Your task to perform on an android device: Go to wifi settings Image 0: 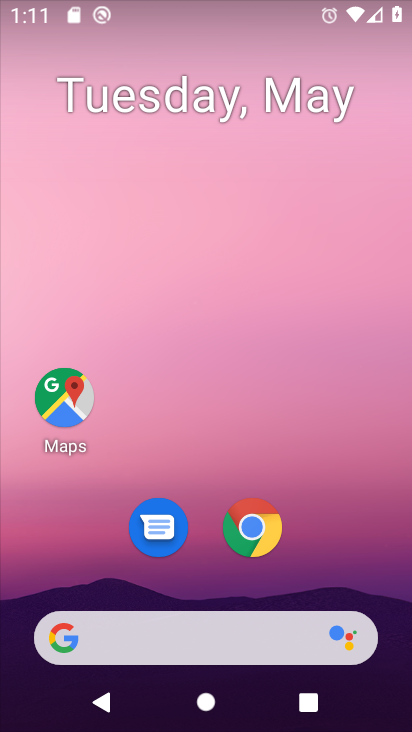
Step 0: drag from (265, 657) to (393, 1)
Your task to perform on an android device: Go to wifi settings Image 1: 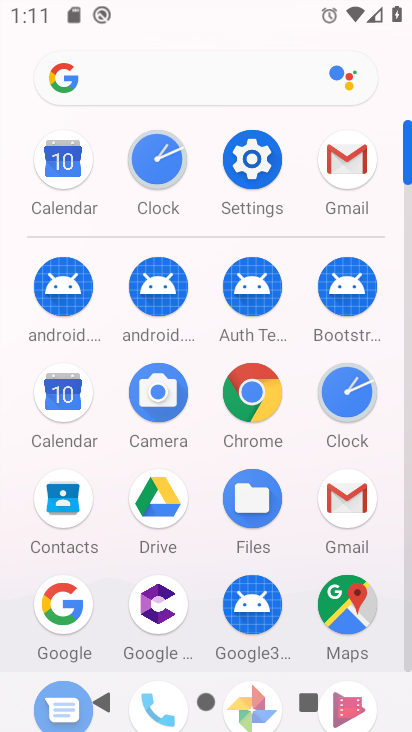
Step 1: click (266, 159)
Your task to perform on an android device: Go to wifi settings Image 2: 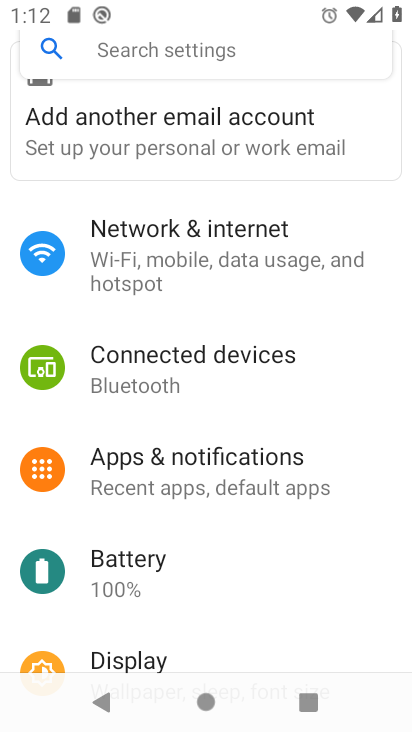
Step 2: click (170, 239)
Your task to perform on an android device: Go to wifi settings Image 3: 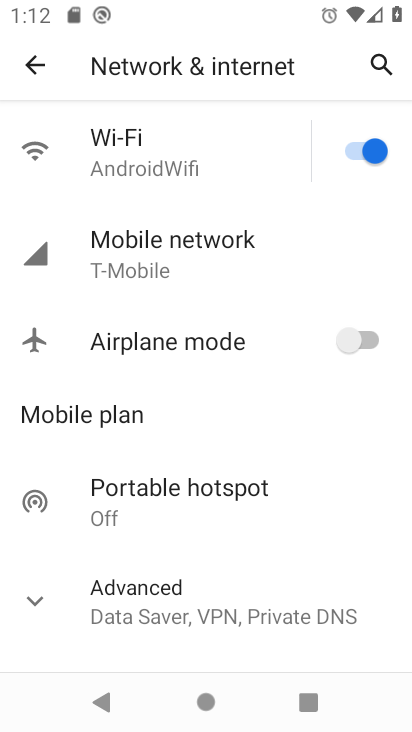
Step 3: click (249, 141)
Your task to perform on an android device: Go to wifi settings Image 4: 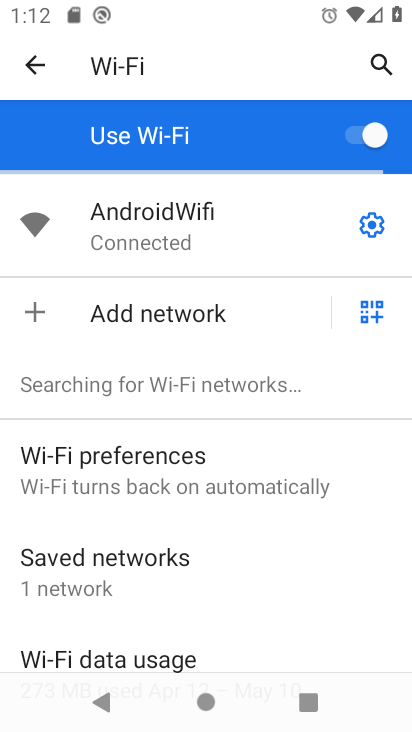
Step 4: click (362, 220)
Your task to perform on an android device: Go to wifi settings Image 5: 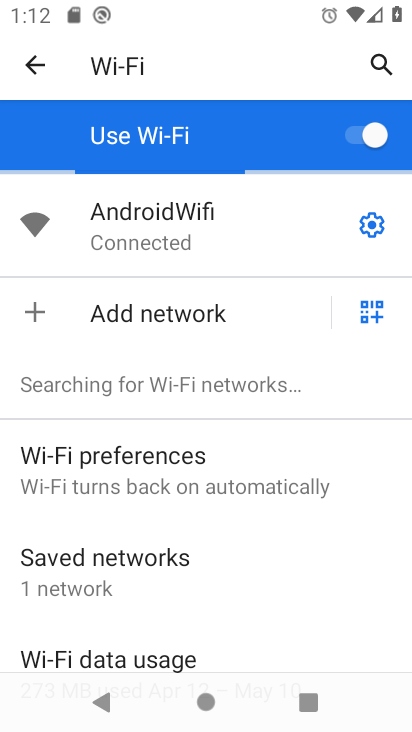
Step 5: click (368, 227)
Your task to perform on an android device: Go to wifi settings Image 6: 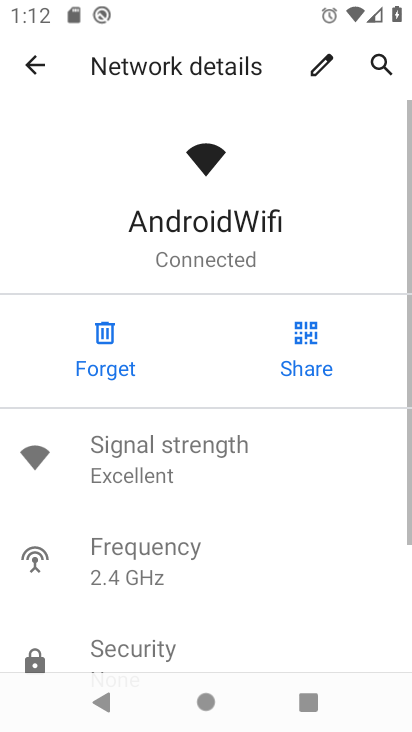
Step 6: task complete